Your task to perform on an android device: Open my contact list Image 0: 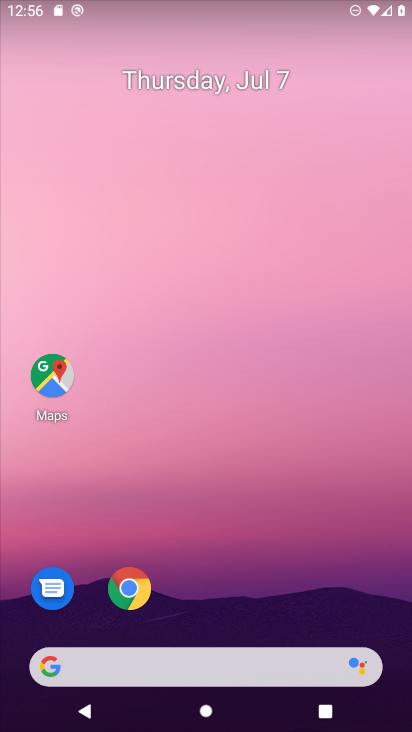
Step 0: drag from (317, 548) to (368, 26)
Your task to perform on an android device: Open my contact list Image 1: 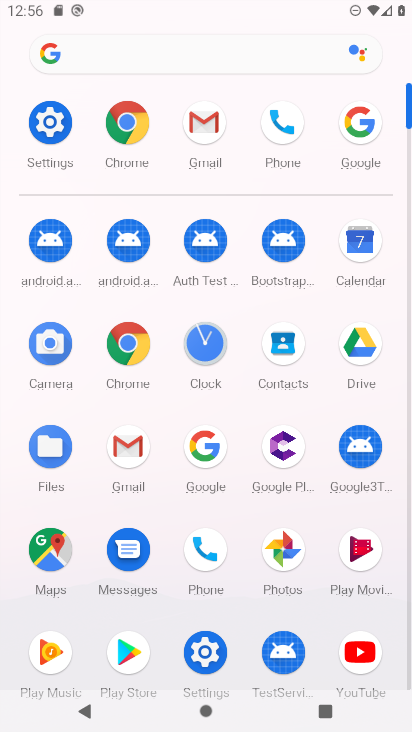
Step 1: click (291, 354)
Your task to perform on an android device: Open my contact list Image 2: 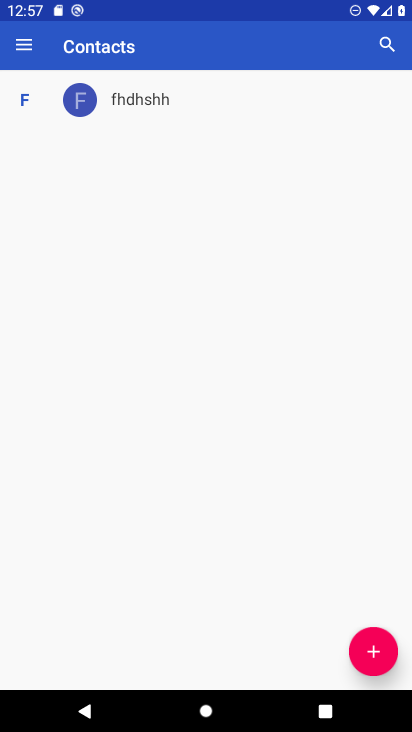
Step 2: task complete